Your task to perform on an android device: check battery use Image 0: 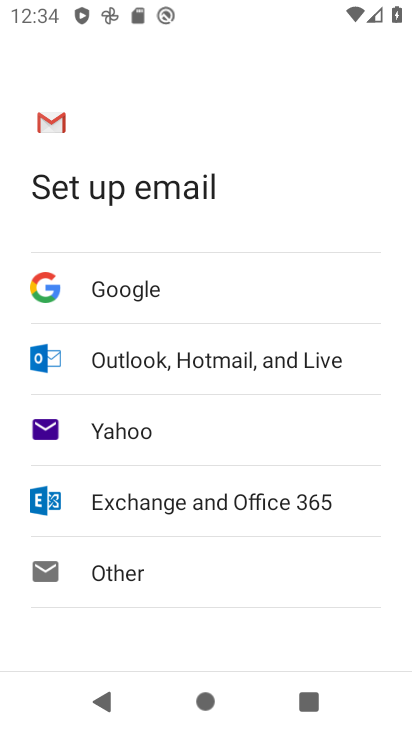
Step 0: press home button
Your task to perform on an android device: check battery use Image 1: 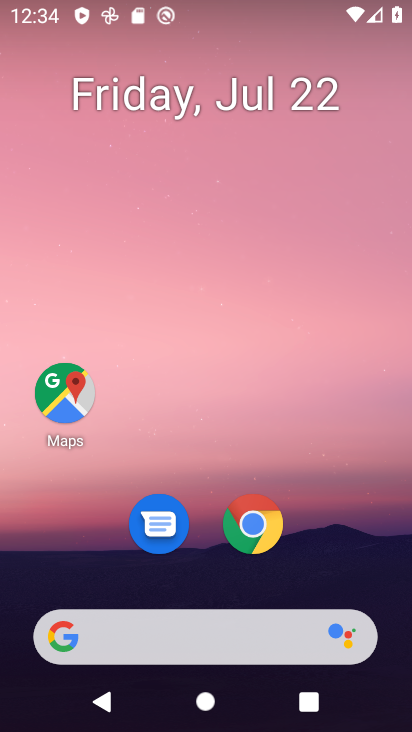
Step 1: drag from (191, 634) to (246, 56)
Your task to perform on an android device: check battery use Image 2: 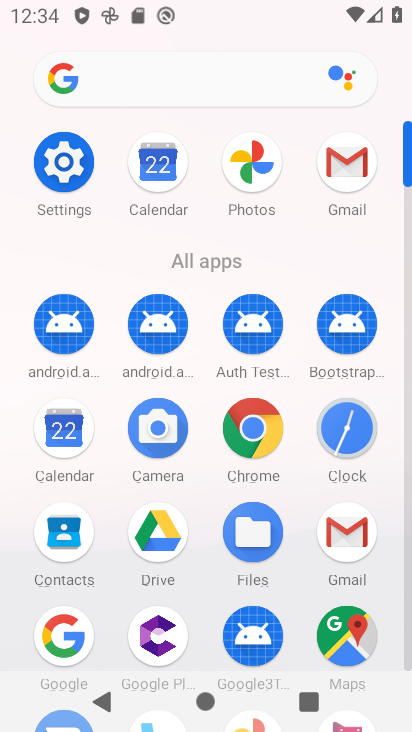
Step 2: click (78, 170)
Your task to perform on an android device: check battery use Image 3: 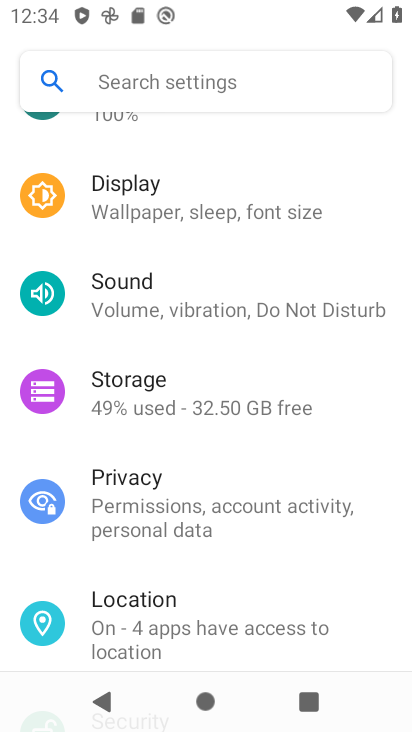
Step 3: drag from (258, 163) to (250, 521)
Your task to perform on an android device: check battery use Image 4: 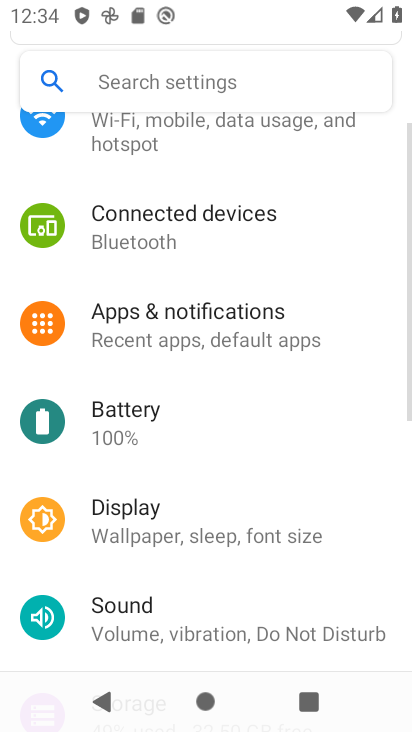
Step 4: click (139, 409)
Your task to perform on an android device: check battery use Image 5: 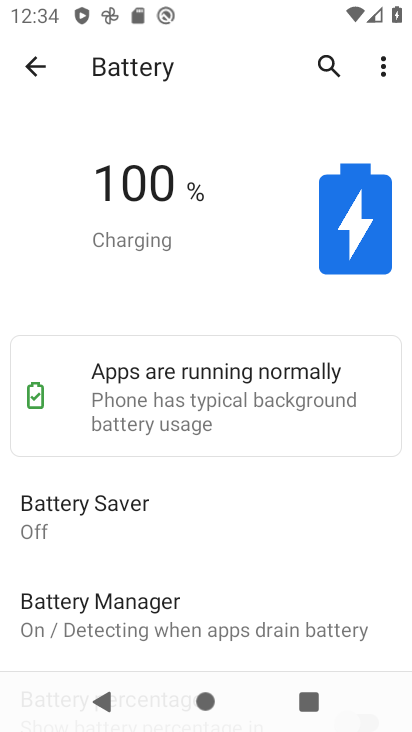
Step 5: click (389, 64)
Your task to perform on an android device: check battery use Image 6: 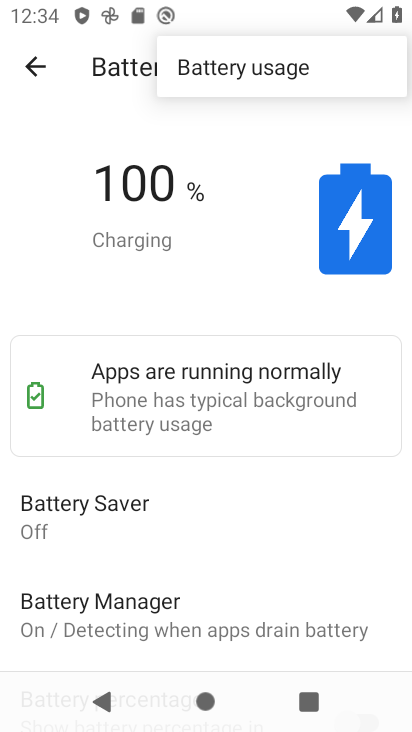
Step 6: click (294, 71)
Your task to perform on an android device: check battery use Image 7: 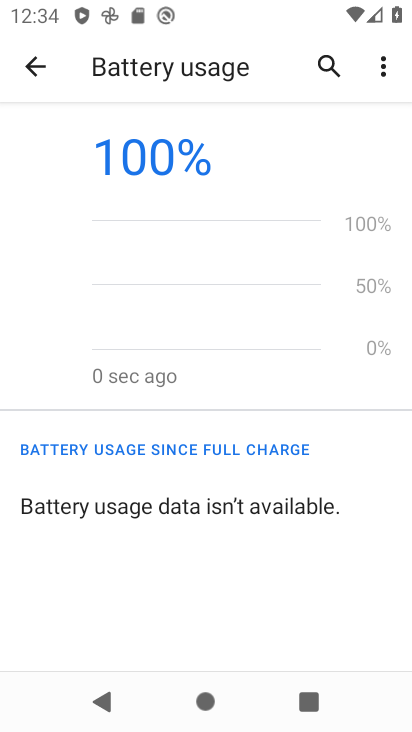
Step 7: task complete